Your task to perform on an android device: Open eBay Image 0: 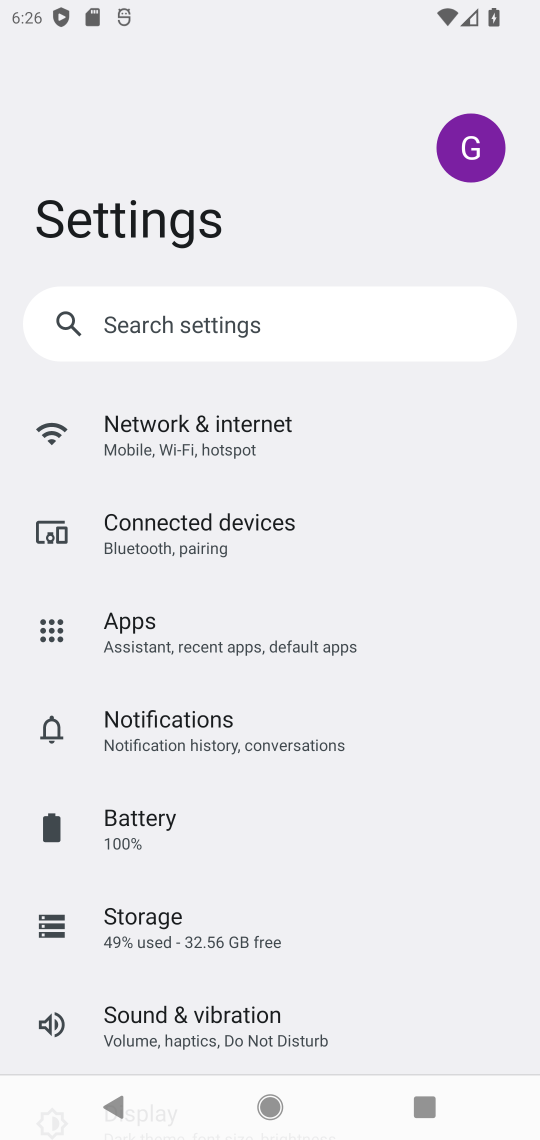
Step 0: press back button
Your task to perform on an android device: Open eBay Image 1: 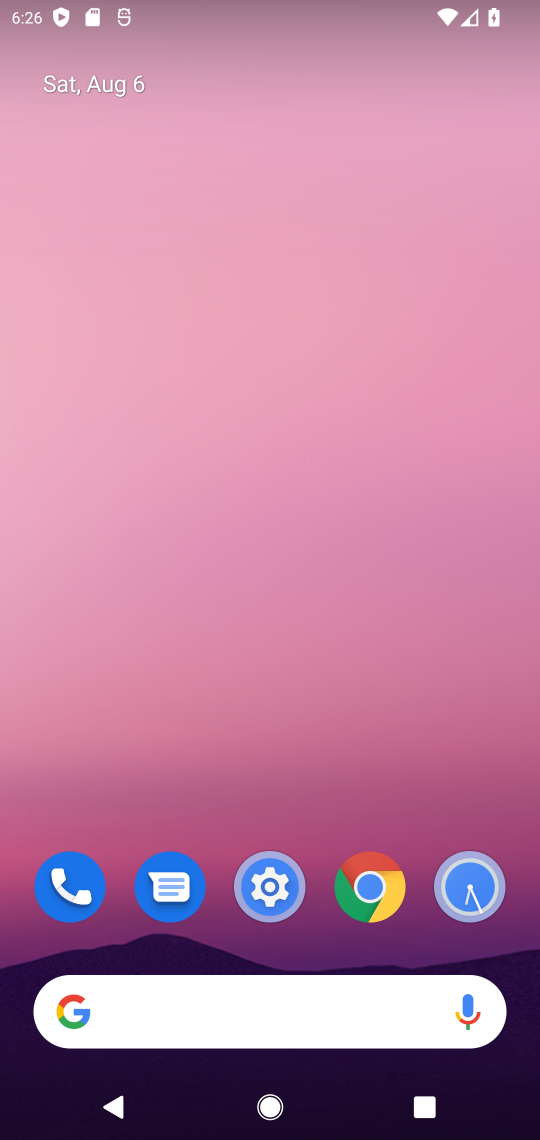
Step 1: drag from (338, 1008) to (117, 295)
Your task to perform on an android device: Open eBay Image 2: 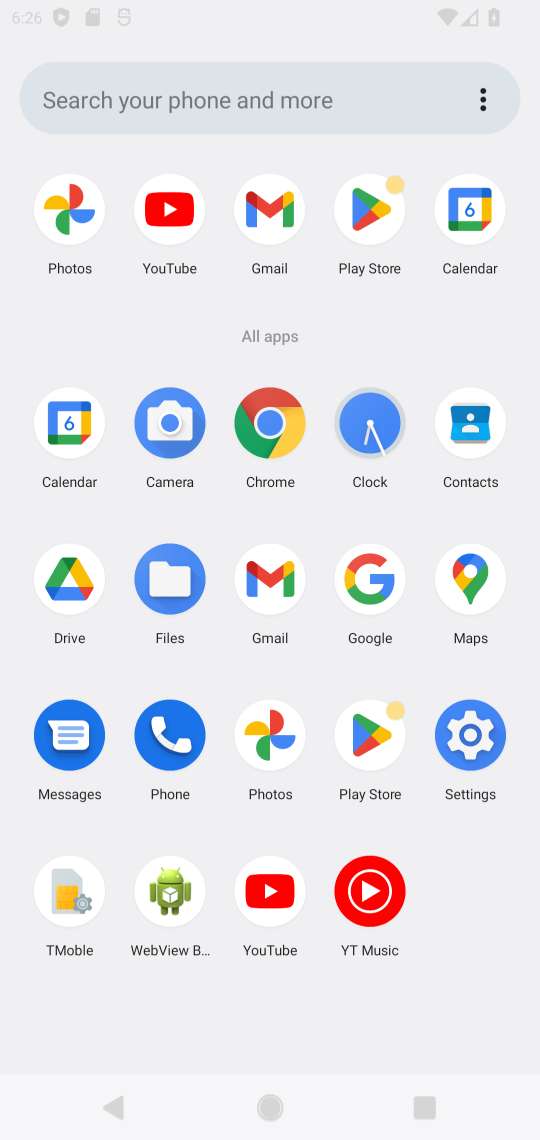
Step 2: click (211, 322)
Your task to perform on an android device: Open eBay Image 3: 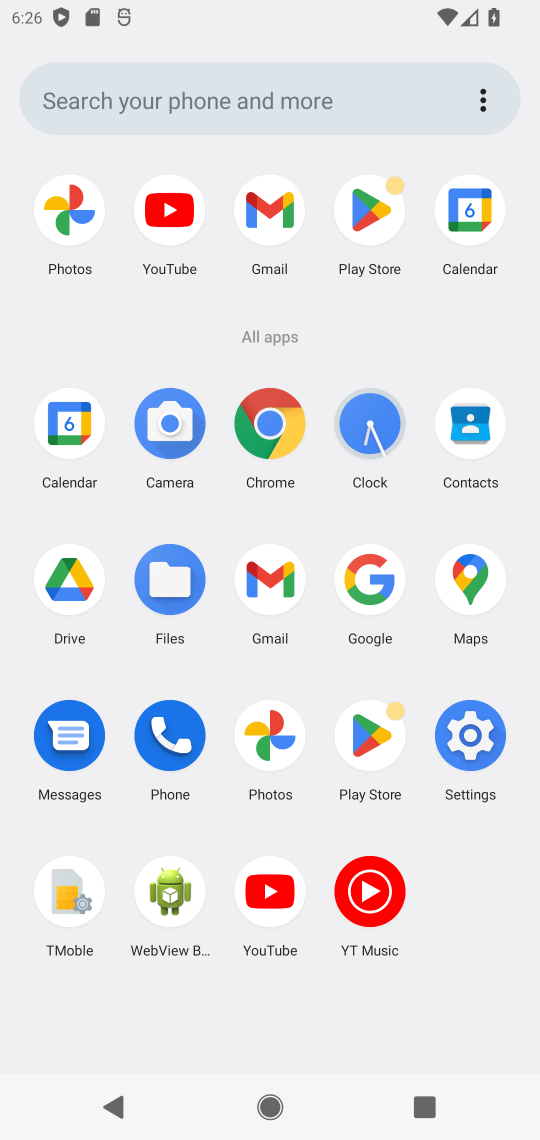
Step 3: click (282, 435)
Your task to perform on an android device: Open eBay Image 4: 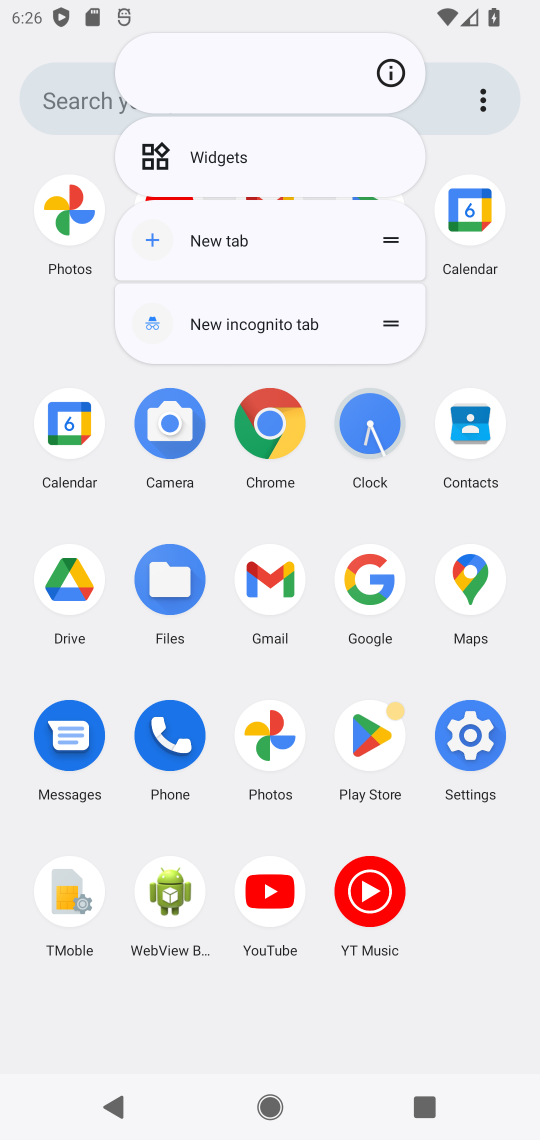
Step 4: click (275, 436)
Your task to perform on an android device: Open eBay Image 5: 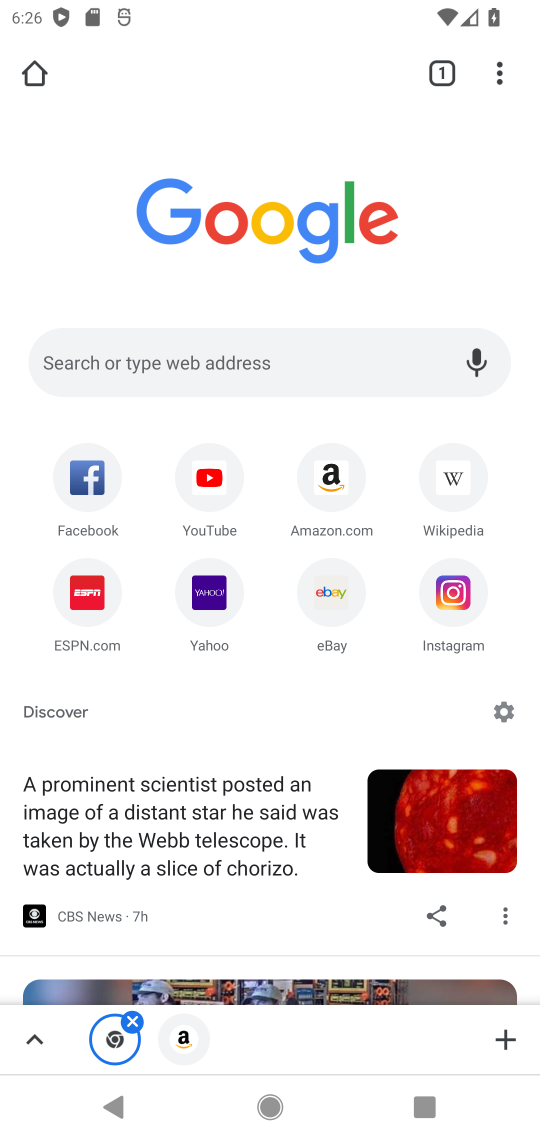
Step 5: click (306, 574)
Your task to perform on an android device: Open eBay Image 6: 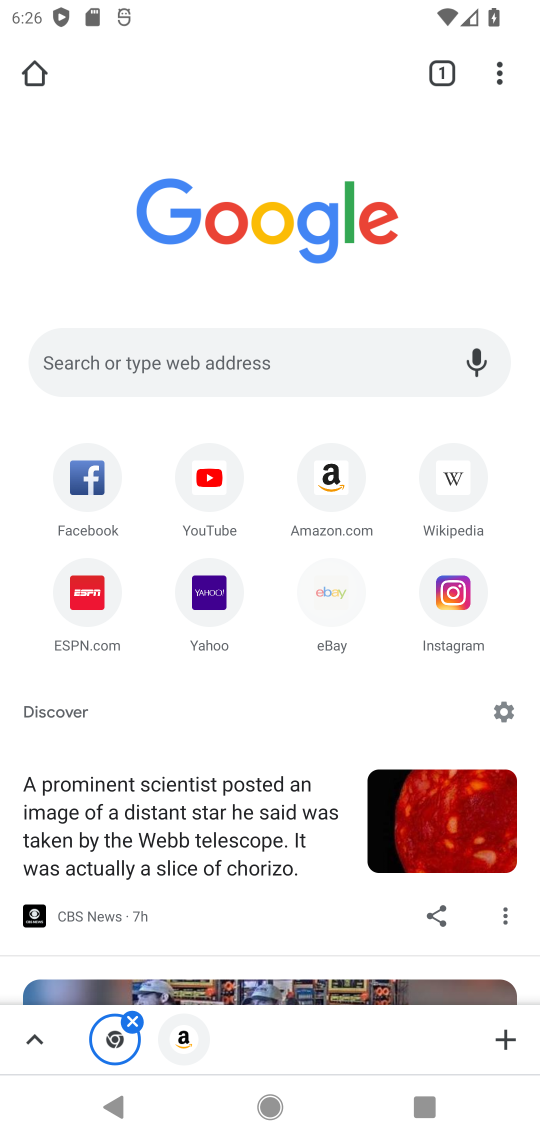
Step 6: click (308, 574)
Your task to perform on an android device: Open eBay Image 7: 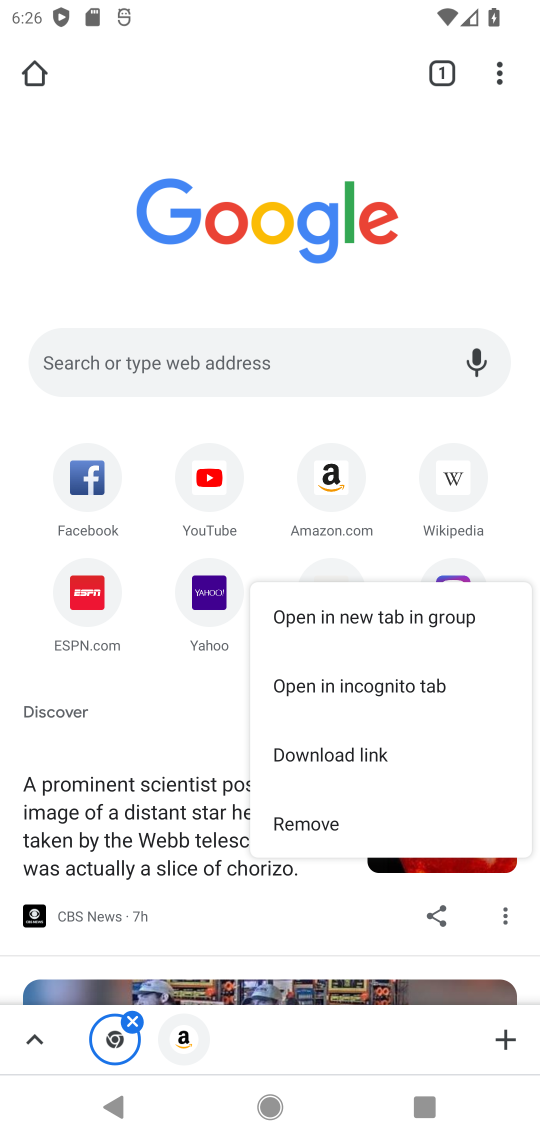
Step 7: click (316, 580)
Your task to perform on an android device: Open eBay Image 8: 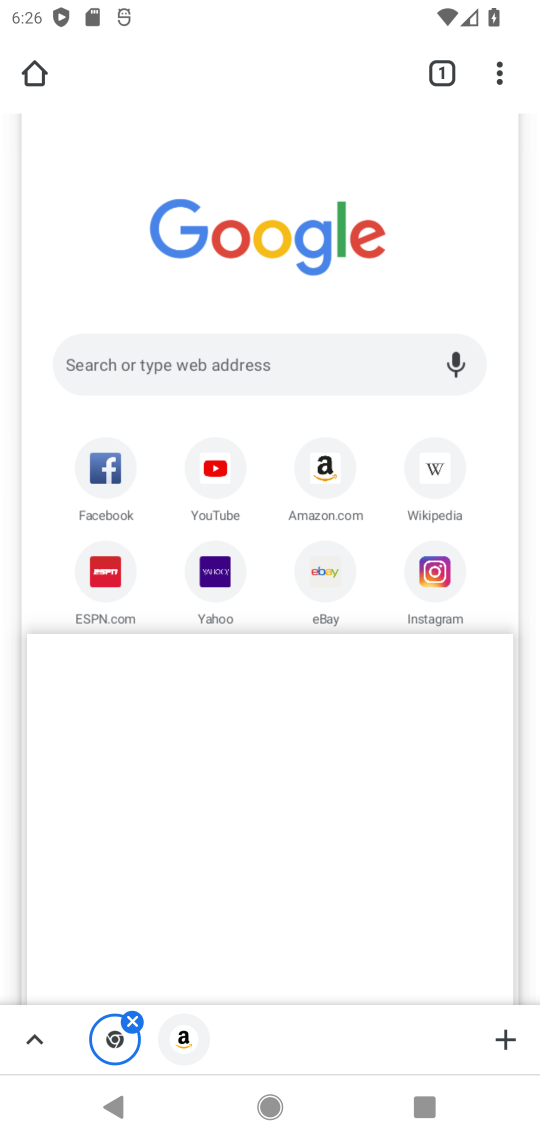
Step 8: click (316, 580)
Your task to perform on an android device: Open eBay Image 9: 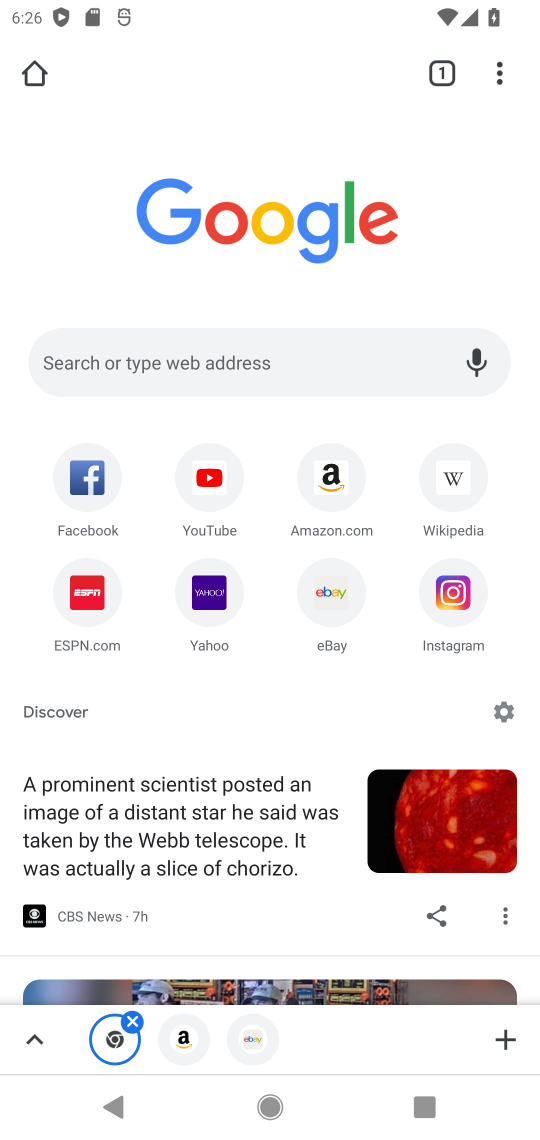
Step 9: click (322, 578)
Your task to perform on an android device: Open eBay Image 10: 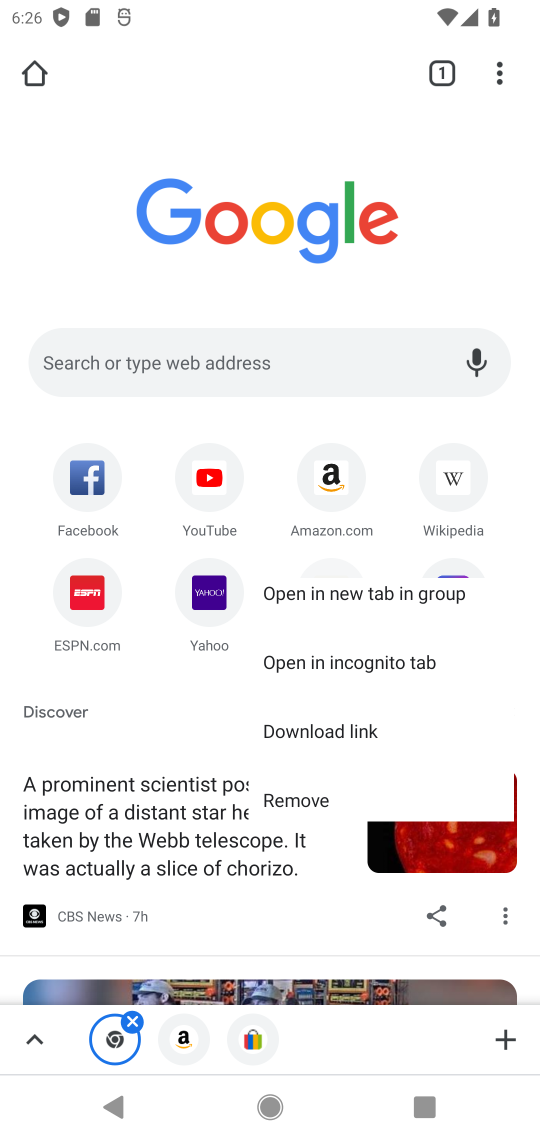
Step 10: click (322, 578)
Your task to perform on an android device: Open eBay Image 11: 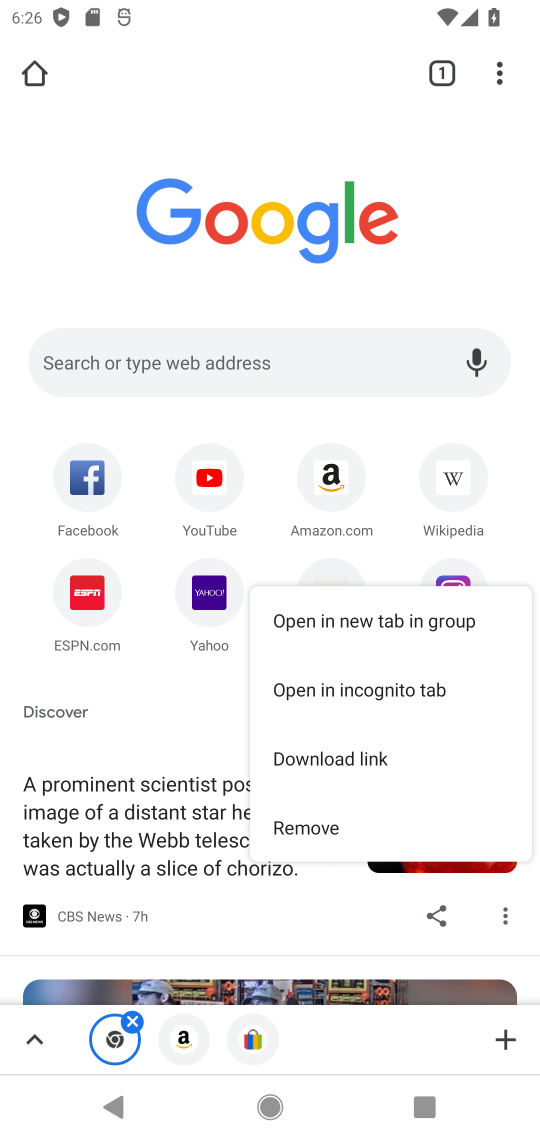
Step 11: click (331, 574)
Your task to perform on an android device: Open eBay Image 12: 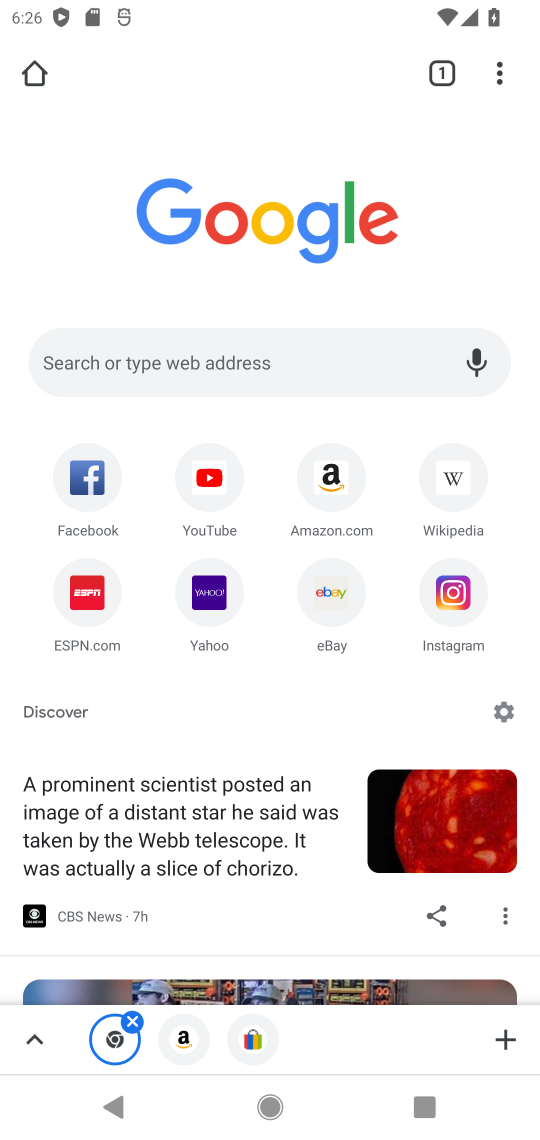
Step 12: click (329, 574)
Your task to perform on an android device: Open eBay Image 13: 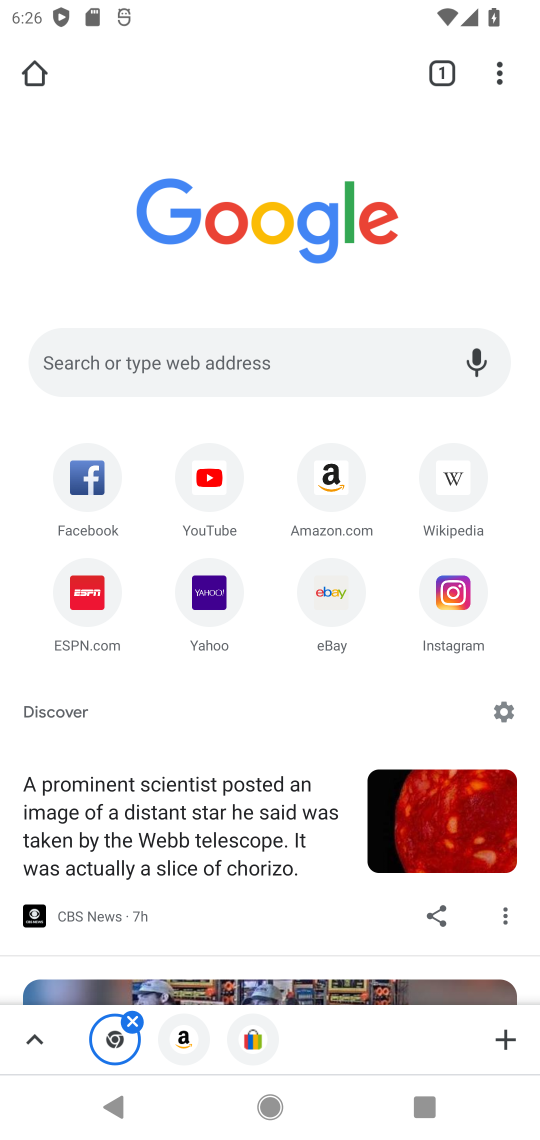
Step 13: click (329, 574)
Your task to perform on an android device: Open eBay Image 14: 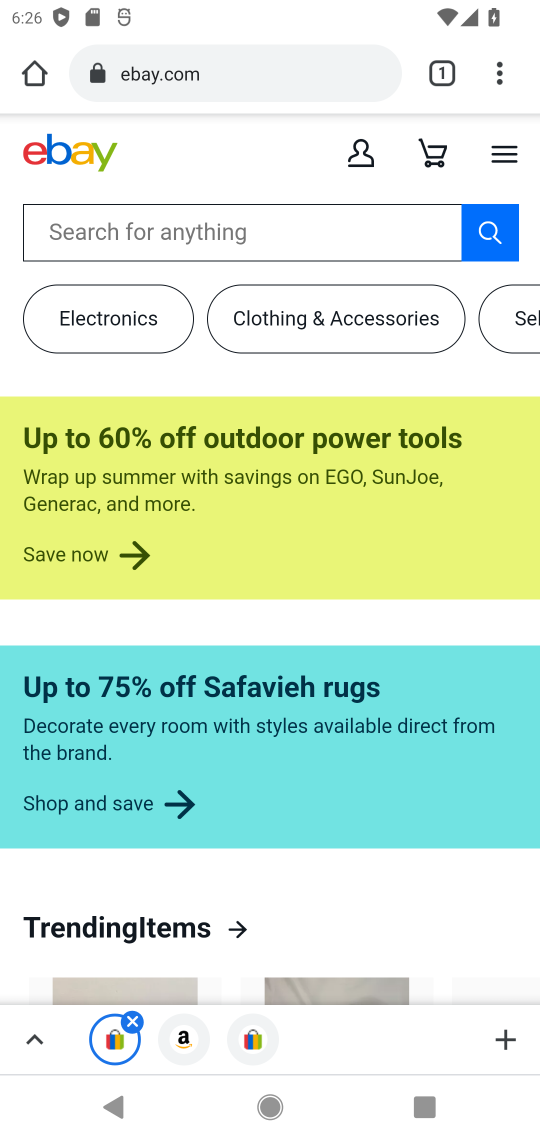
Step 14: task complete